Your task to perform on an android device: turn off notifications settings in the gmail app Image 0: 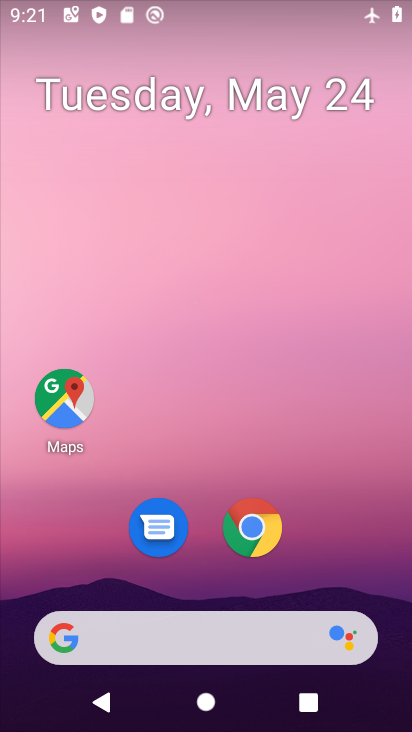
Step 0: drag from (390, 716) to (335, 273)
Your task to perform on an android device: turn off notifications settings in the gmail app Image 1: 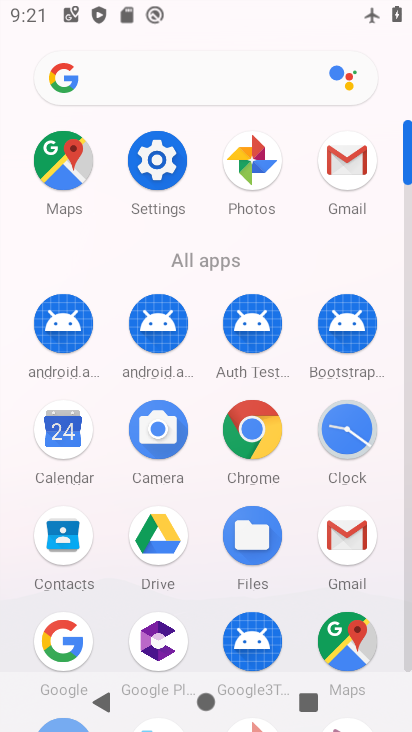
Step 1: click (357, 529)
Your task to perform on an android device: turn off notifications settings in the gmail app Image 2: 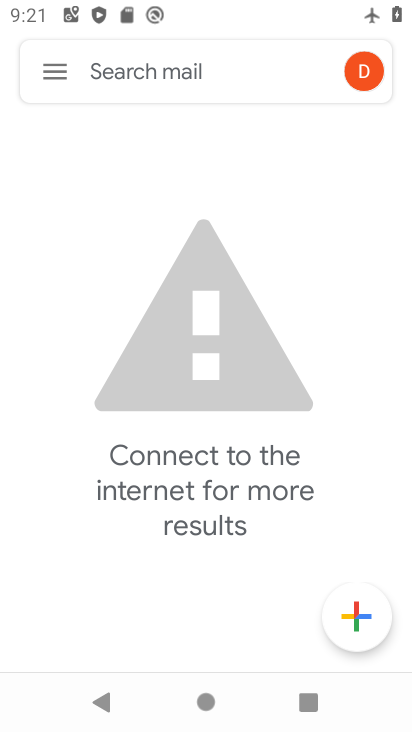
Step 2: click (53, 69)
Your task to perform on an android device: turn off notifications settings in the gmail app Image 3: 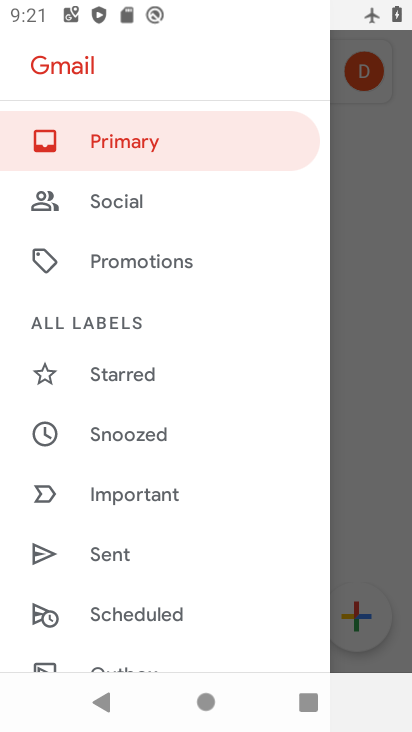
Step 3: drag from (237, 643) to (187, 124)
Your task to perform on an android device: turn off notifications settings in the gmail app Image 4: 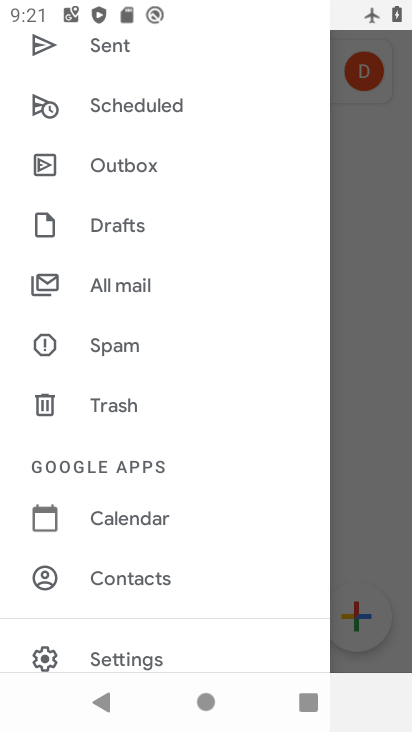
Step 4: click (135, 651)
Your task to perform on an android device: turn off notifications settings in the gmail app Image 5: 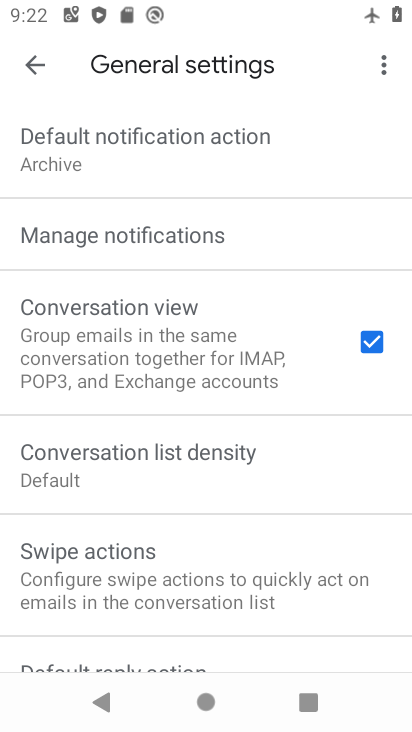
Step 5: click (101, 235)
Your task to perform on an android device: turn off notifications settings in the gmail app Image 6: 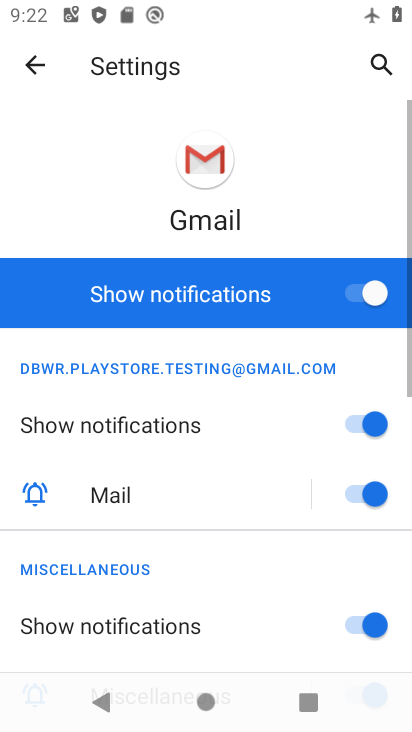
Step 6: click (349, 297)
Your task to perform on an android device: turn off notifications settings in the gmail app Image 7: 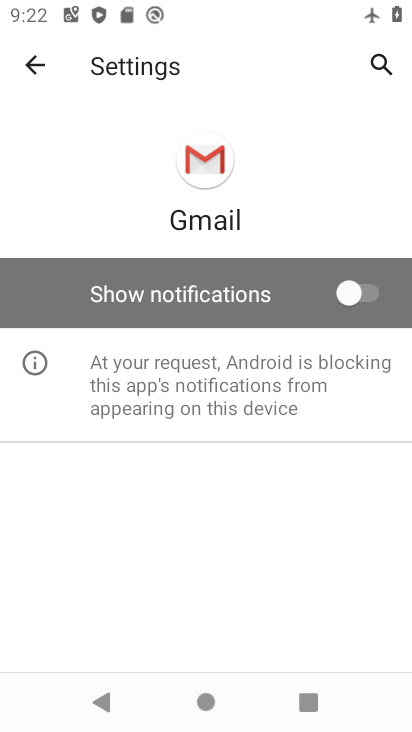
Step 7: task complete